Your task to perform on an android device: Go to notification settings Image 0: 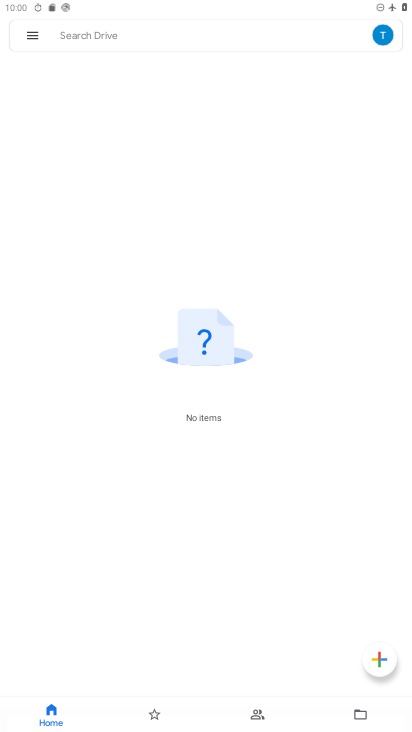
Step 0: press home button
Your task to perform on an android device: Go to notification settings Image 1: 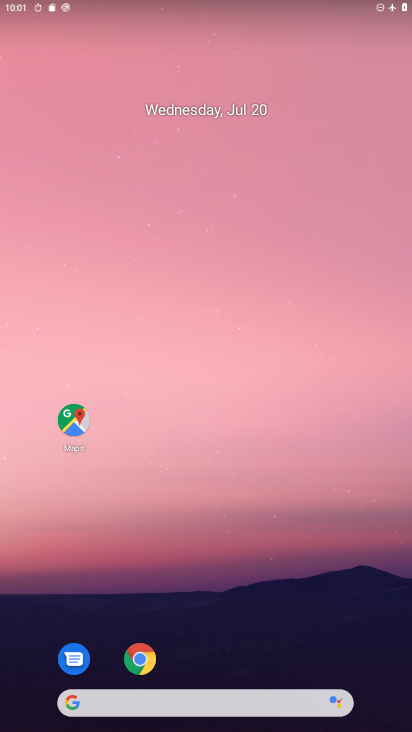
Step 1: drag from (291, 599) to (238, 121)
Your task to perform on an android device: Go to notification settings Image 2: 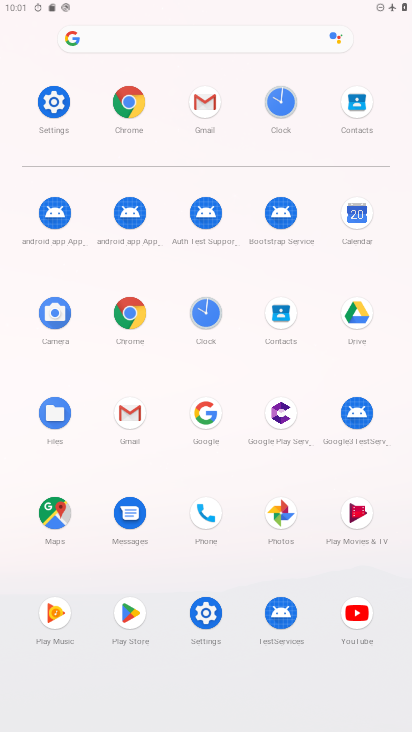
Step 2: click (50, 93)
Your task to perform on an android device: Go to notification settings Image 3: 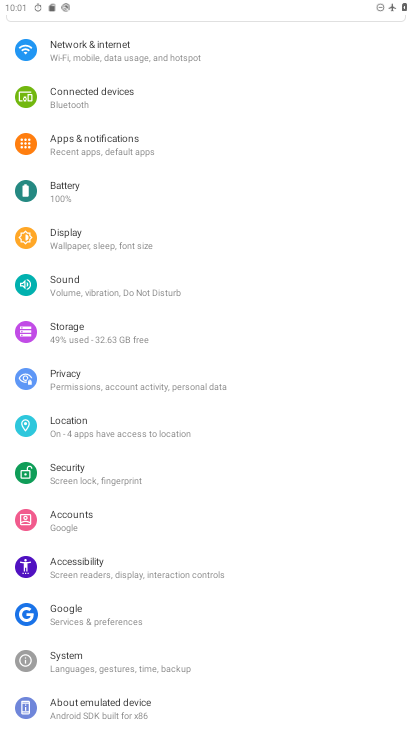
Step 3: click (129, 140)
Your task to perform on an android device: Go to notification settings Image 4: 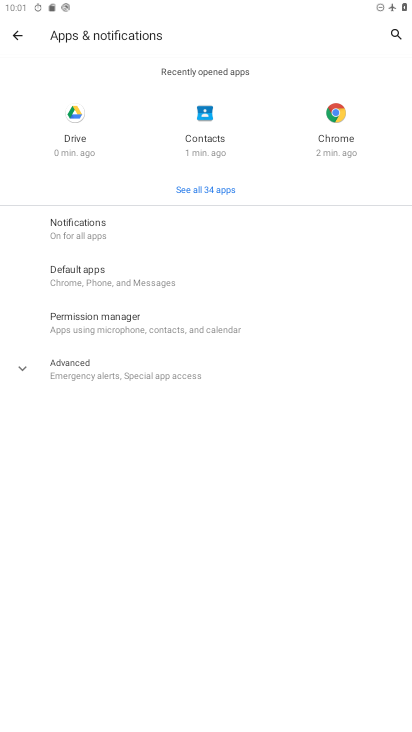
Step 4: click (92, 227)
Your task to perform on an android device: Go to notification settings Image 5: 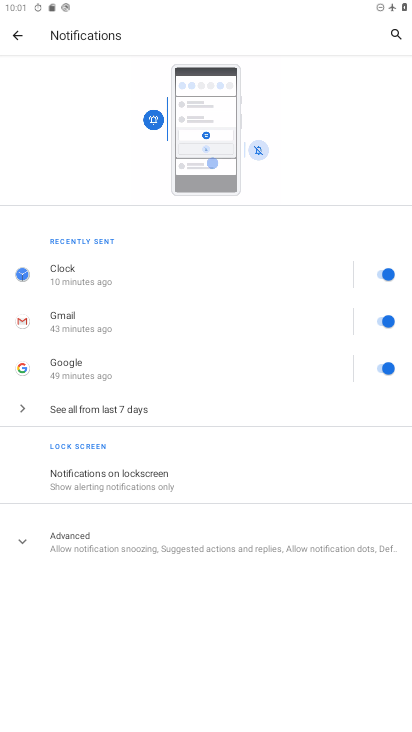
Step 5: task complete